Your task to perform on an android device: Open display settings Image 0: 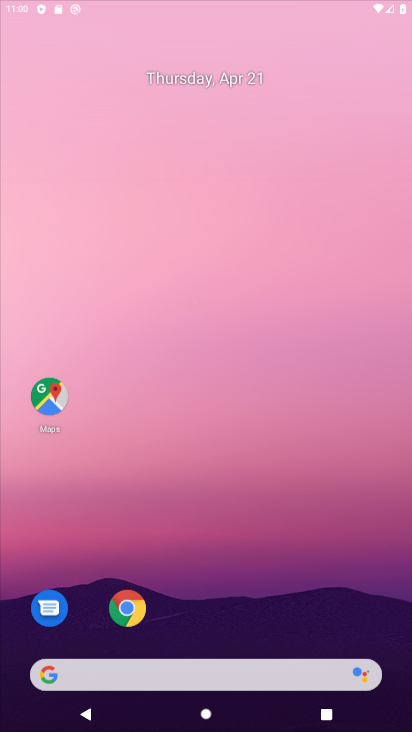
Step 0: drag from (174, 481) to (228, 239)
Your task to perform on an android device: Open display settings Image 1: 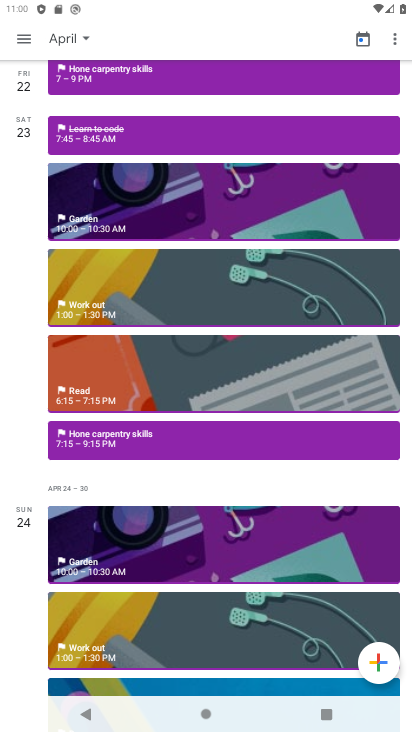
Step 1: press home button
Your task to perform on an android device: Open display settings Image 2: 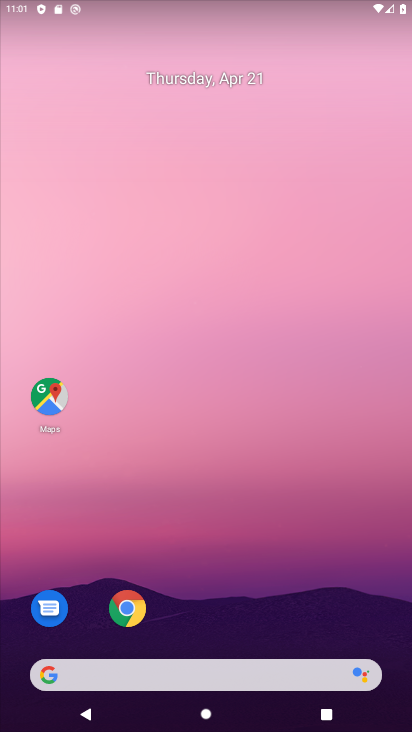
Step 2: drag from (176, 567) to (200, 239)
Your task to perform on an android device: Open display settings Image 3: 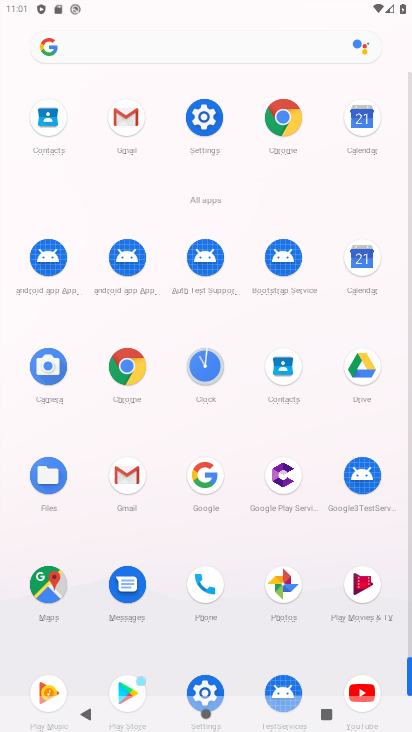
Step 3: click (197, 129)
Your task to perform on an android device: Open display settings Image 4: 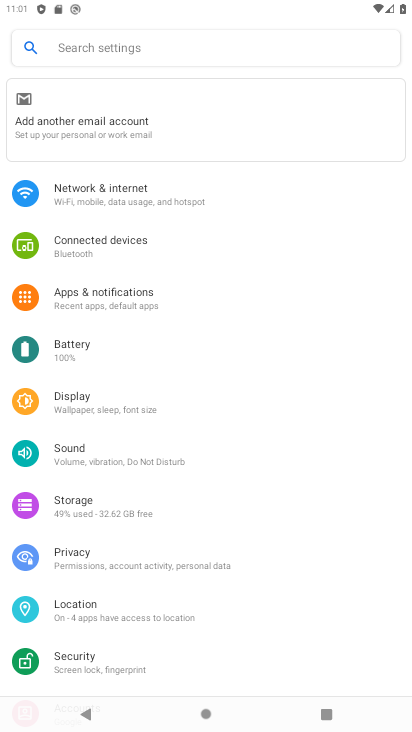
Step 4: click (118, 396)
Your task to perform on an android device: Open display settings Image 5: 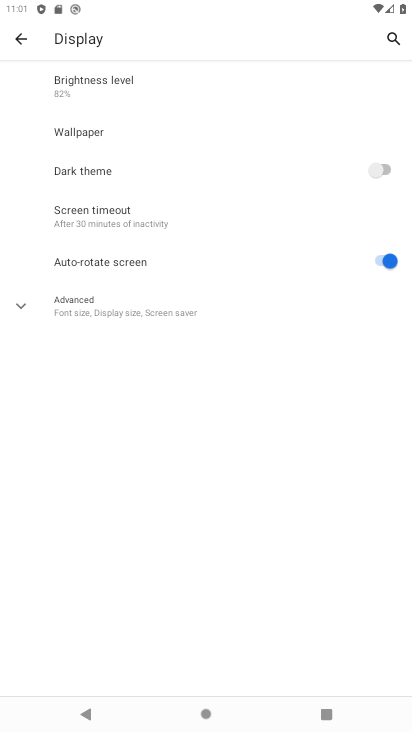
Step 5: task complete